Your task to perform on an android device: change the clock display to digital Image 0: 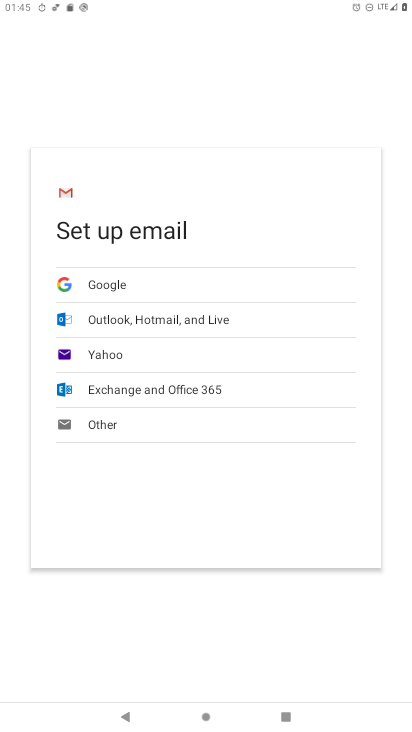
Step 0: press home button
Your task to perform on an android device: change the clock display to digital Image 1: 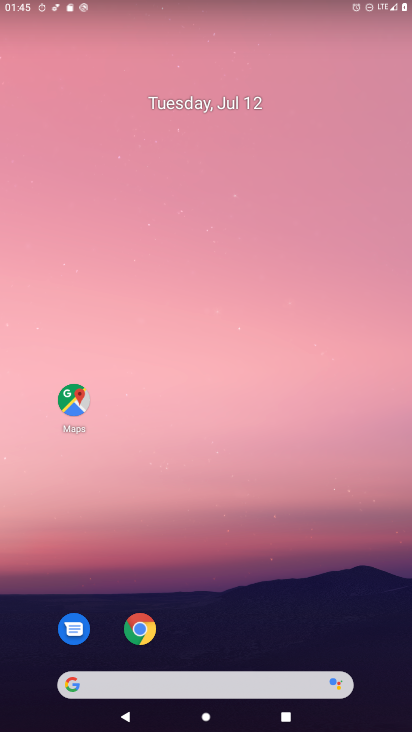
Step 1: drag from (44, 712) to (346, 49)
Your task to perform on an android device: change the clock display to digital Image 2: 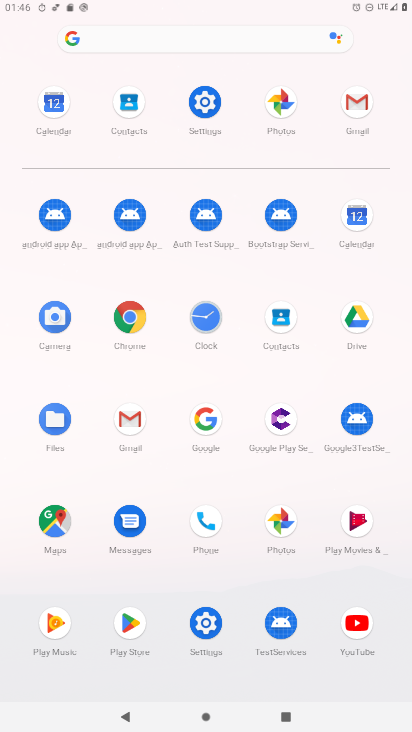
Step 2: click (216, 330)
Your task to perform on an android device: change the clock display to digital Image 3: 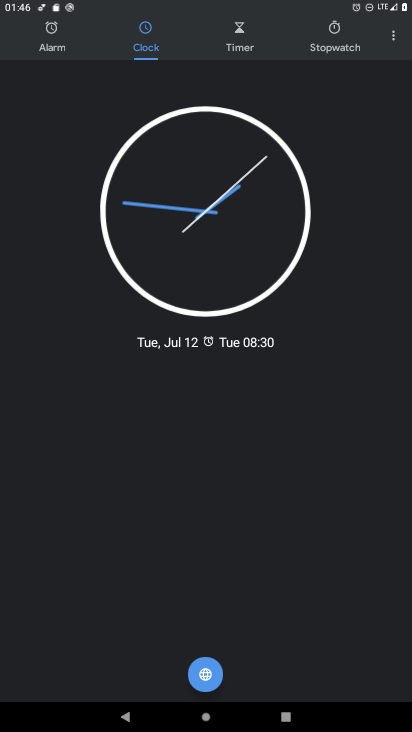
Step 3: click (390, 41)
Your task to perform on an android device: change the clock display to digital Image 4: 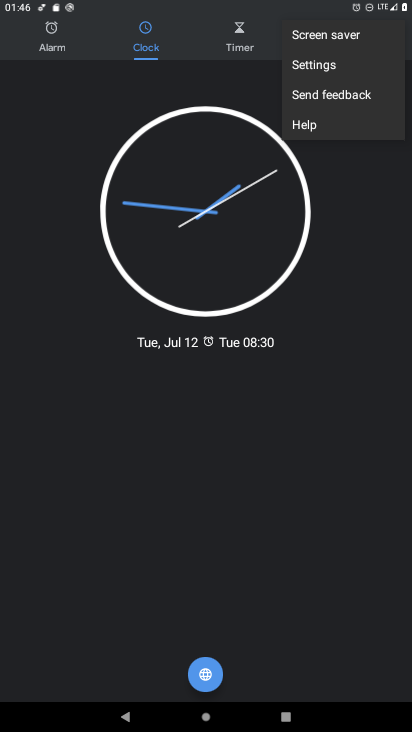
Step 4: click (334, 68)
Your task to perform on an android device: change the clock display to digital Image 5: 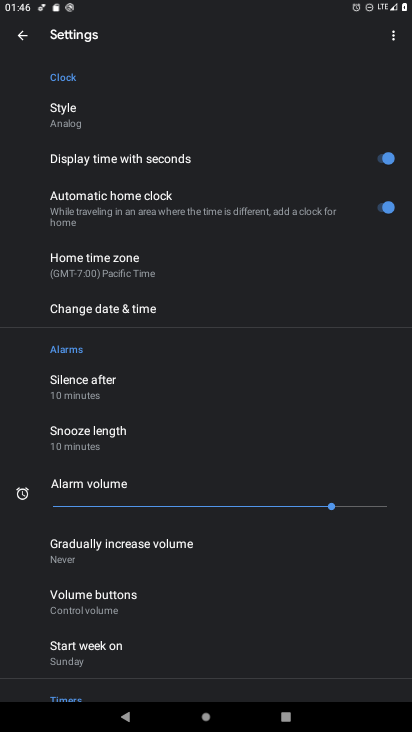
Step 5: click (87, 120)
Your task to perform on an android device: change the clock display to digital Image 6: 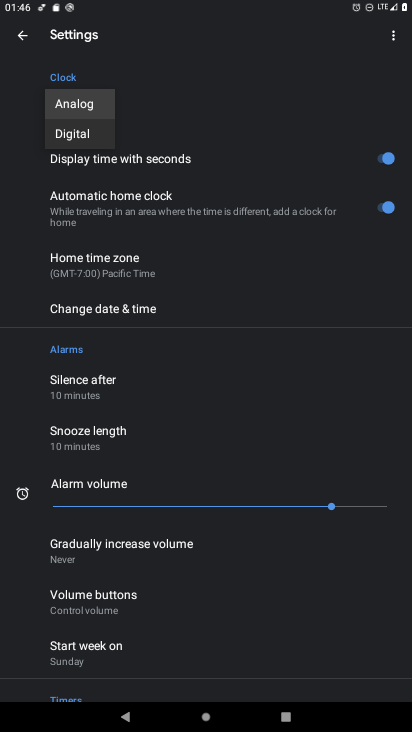
Step 6: click (90, 138)
Your task to perform on an android device: change the clock display to digital Image 7: 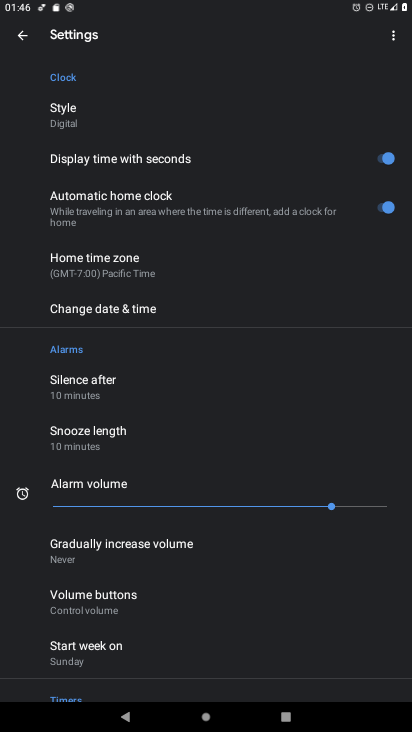
Step 7: task complete